Your task to perform on an android device: Go to Wikipedia Image 0: 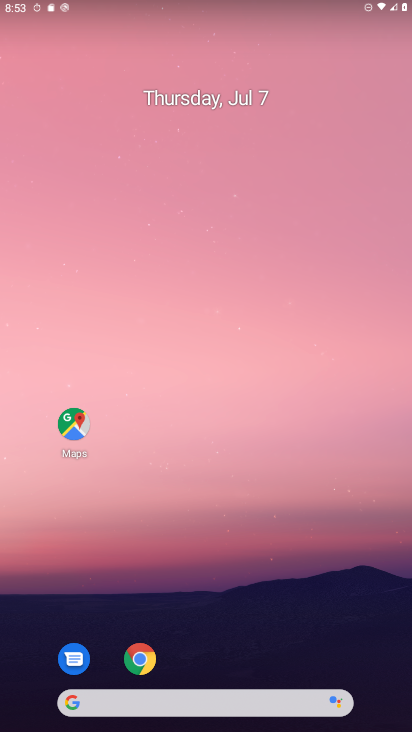
Step 0: drag from (374, 694) to (306, 0)
Your task to perform on an android device: Go to Wikipedia Image 1: 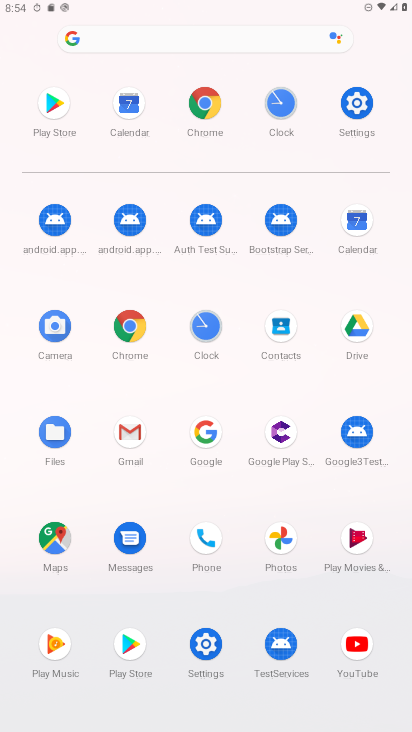
Step 1: click (207, 434)
Your task to perform on an android device: Go to Wikipedia Image 2: 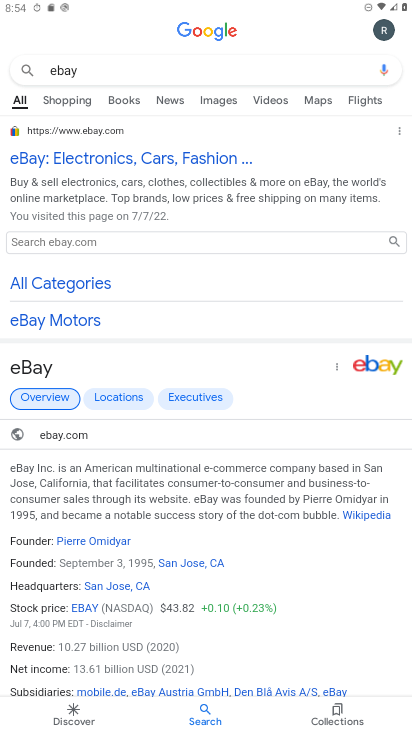
Step 2: press back button
Your task to perform on an android device: Go to Wikipedia Image 3: 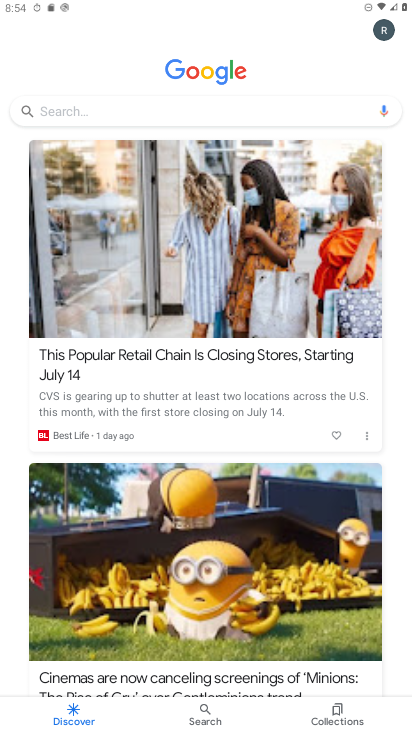
Step 3: click (93, 104)
Your task to perform on an android device: Go to Wikipedia Image 4: 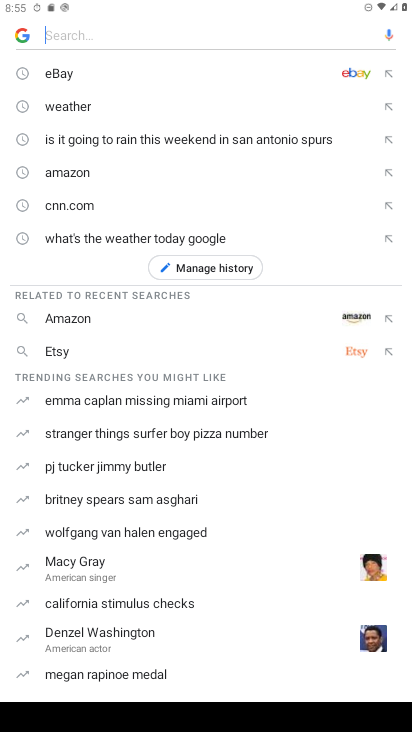
Step 4: type "Wikipedia"
Your task to perform on an android device: Go to Wikipedia Image 5: 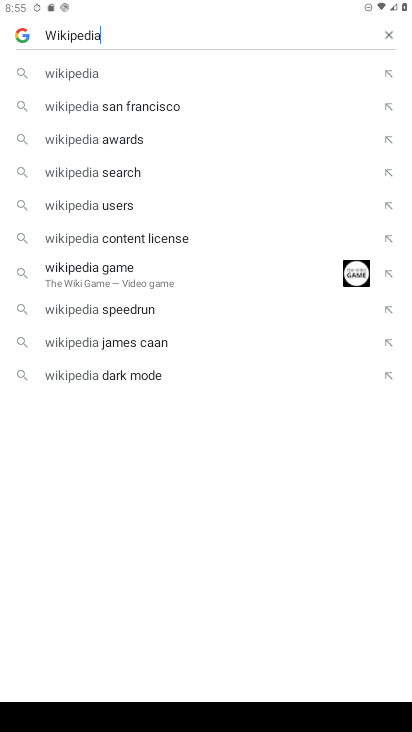
Step 5: click (75, 76)
Your task to perform on an android device: Go to Wikipedia Image 6: 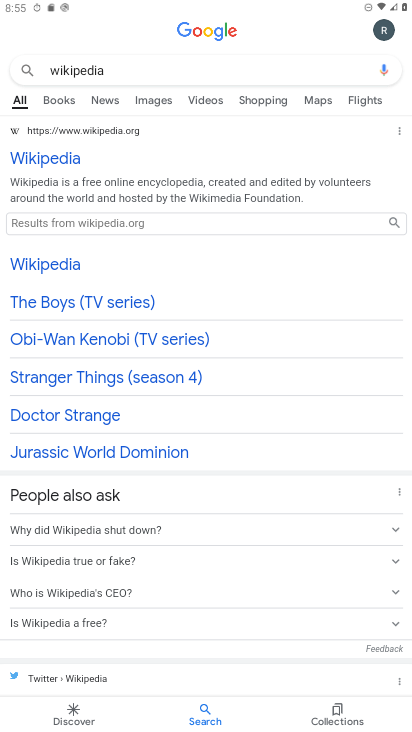
Step 6: task complete